Your task to perform on an android device: check the backup settings in the google photos Image 0: 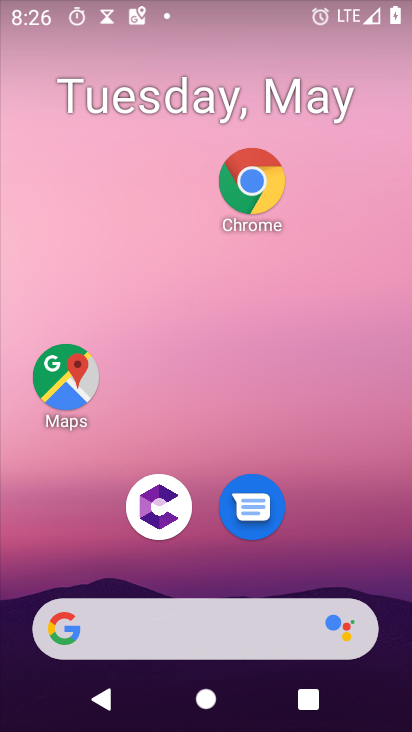
Step 0: drag from (334, 487) to (344, 42)
Your task to perform on an android device: check the backup settings in the google photos Image 1: 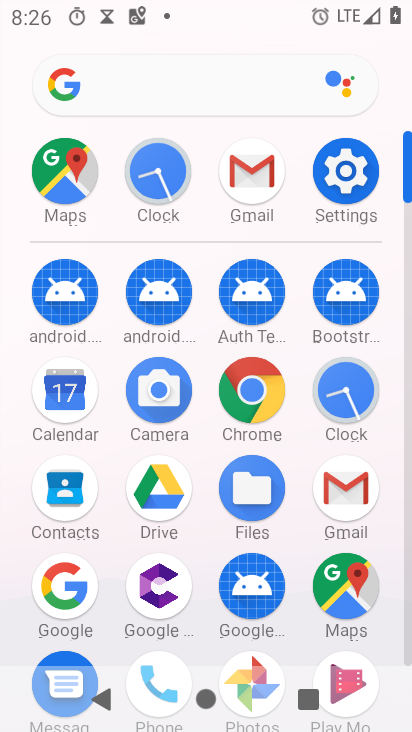
Step 1: drag from (192, 634) to (171, 420)
Your task to perform on an android device: check the backup settings in the google photos Image 2: 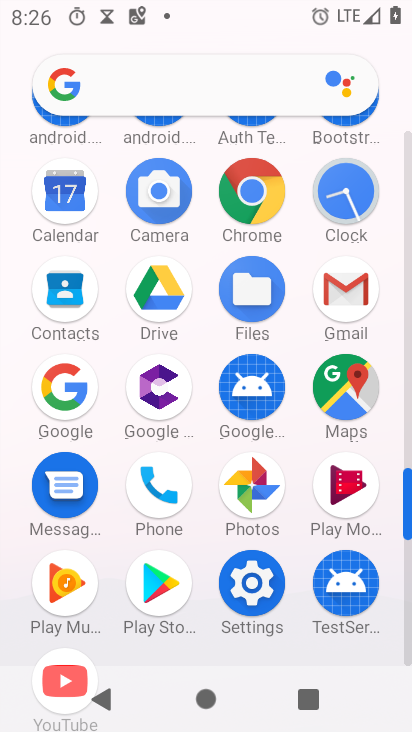
Step 2: click (242, 479)
Your task to perform on an android device: check the backup settings in the google photos Image 3: 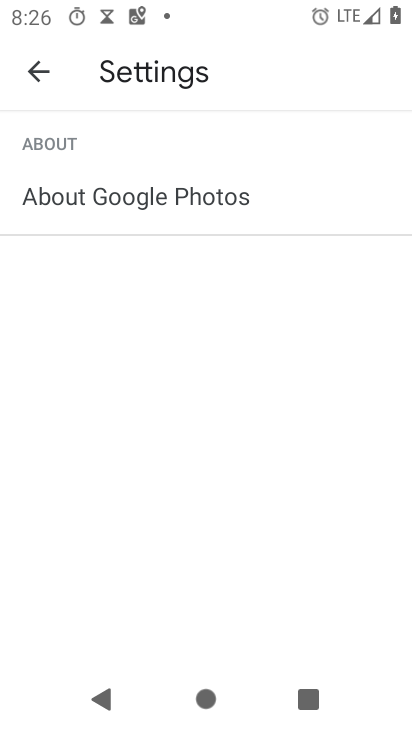
Step 3: click (33, 95)
Your task to perform on an android device: check the backup settings in the google photos Image 4: 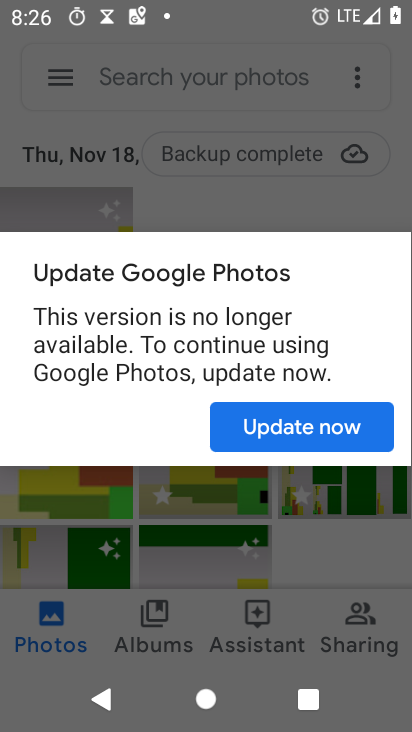
Step 4: click (266, 427)
Your task to perform on an android device: check the backup settings in the google photos Image 5: 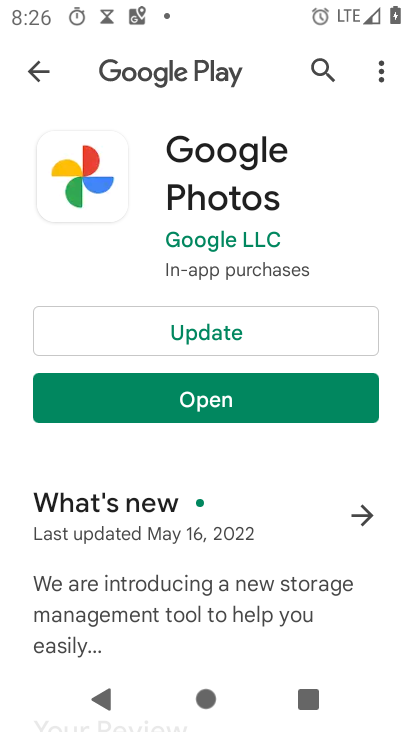
Step 5: click (226, 320)
Your task to perform on an android device: check the backup settings in the google photos Image 6: 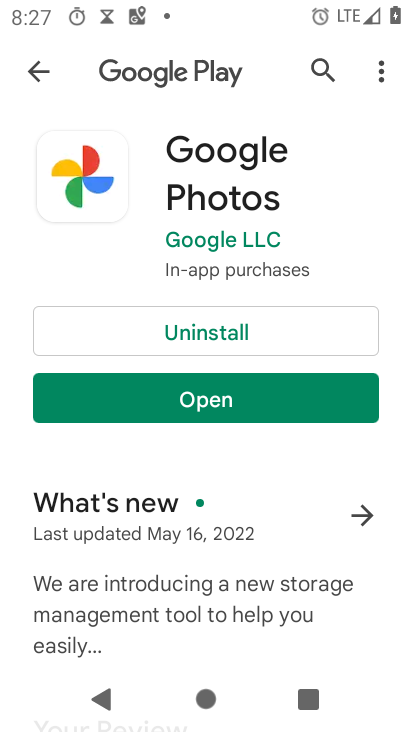
Step 6: click (247, 405)
Your task to perform on an android device: check the backup settings in the google photos Image 7: 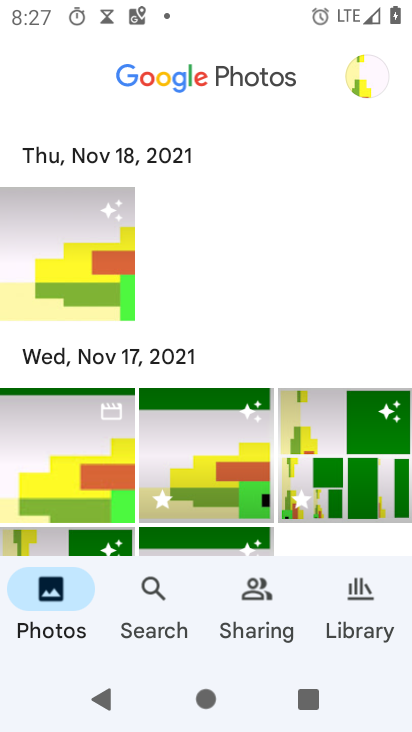
Step 7: click (371, 74)
Your task to perform on an android device: check the backup settings in the google photos Image 8: 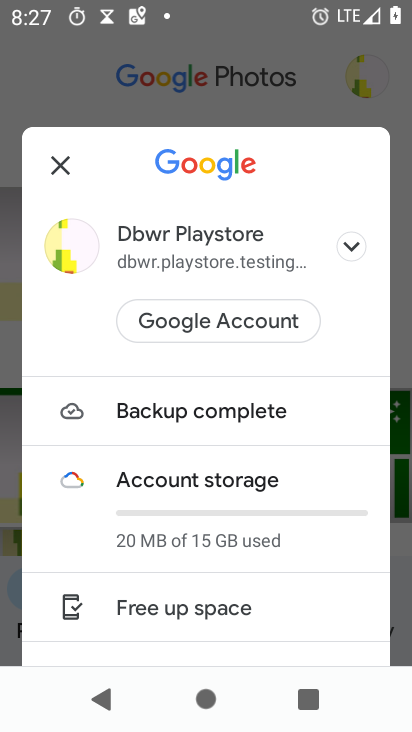
Step 8: drag from (195, 544) to (177, 356)
Your task to perform on an android device: check the backup settings in the google photos Image 9: 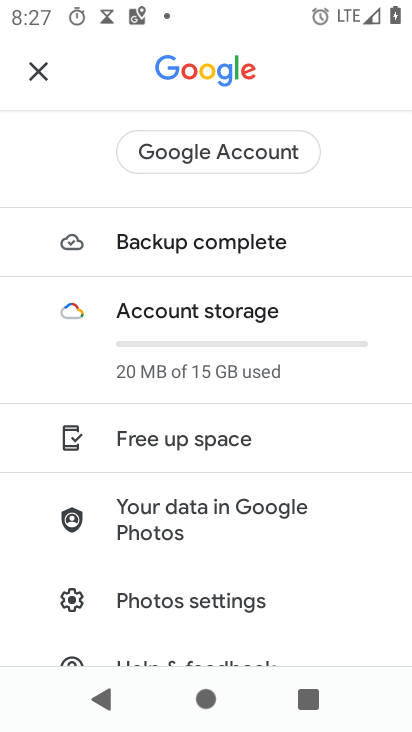
Step 9: click (192, 599)
Your task to perform on an android device: check the backup settings in the google photos Image 10: 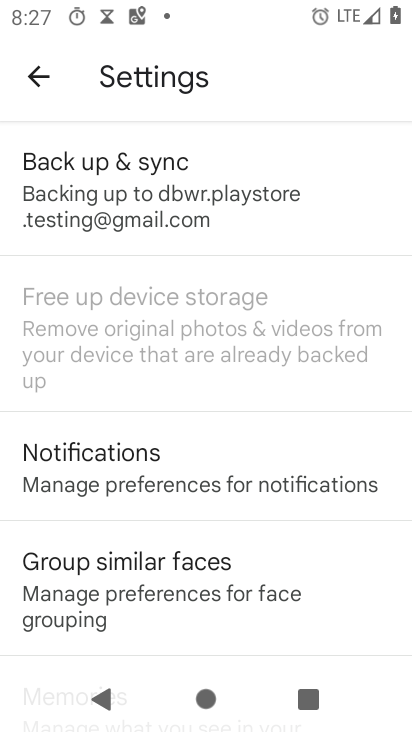
Step 10: click (211, 211)
Your task to perform on an android device: check the backup settings in the google photos Image 11: 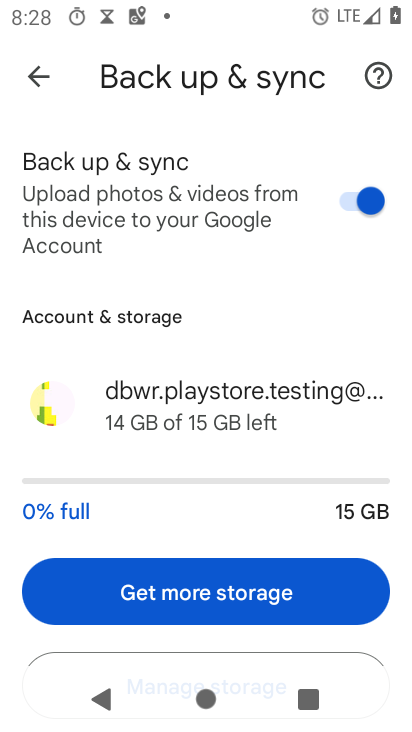
Step 11: task complete